Your task to perform on an android device: uninstall "Google Home" Image 0: 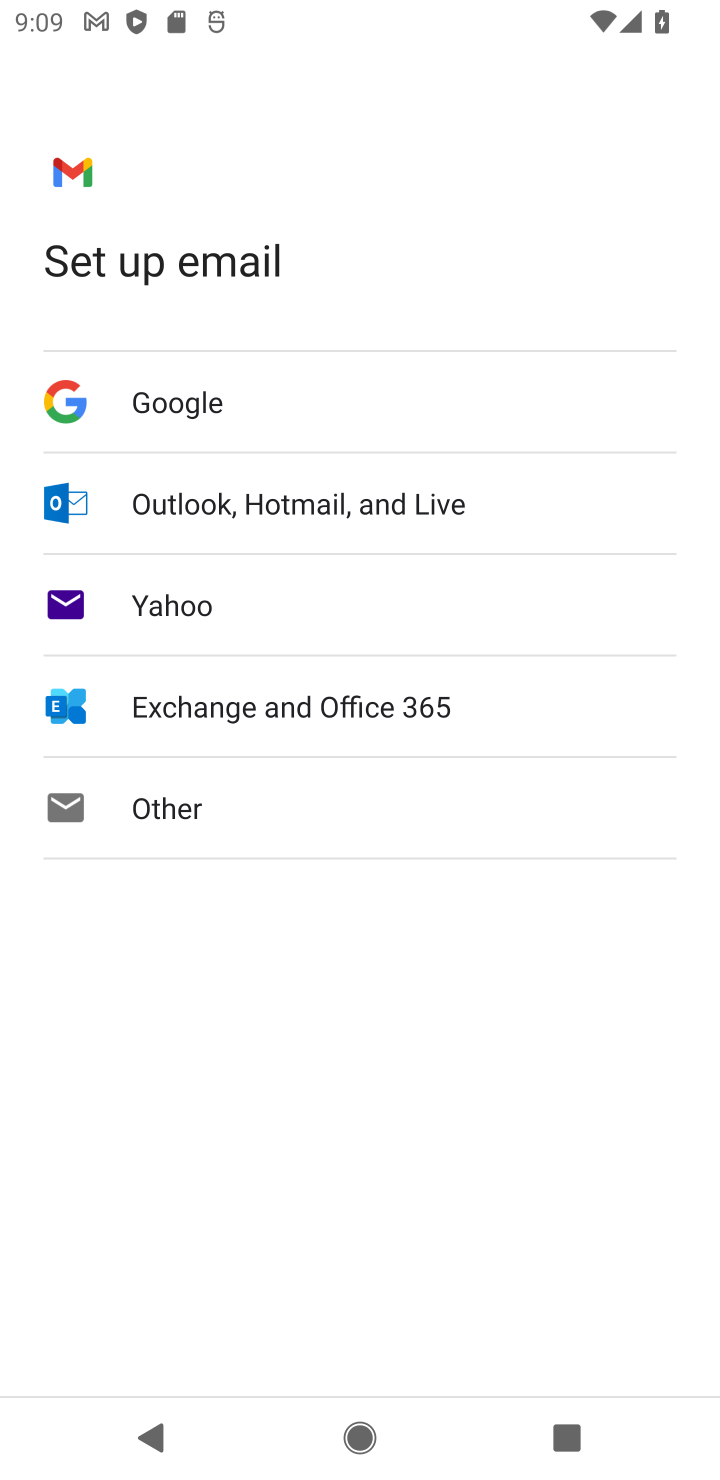
Step 0: press back button
Your task to perform on an android device: uninstall "Google Home" Image 1: 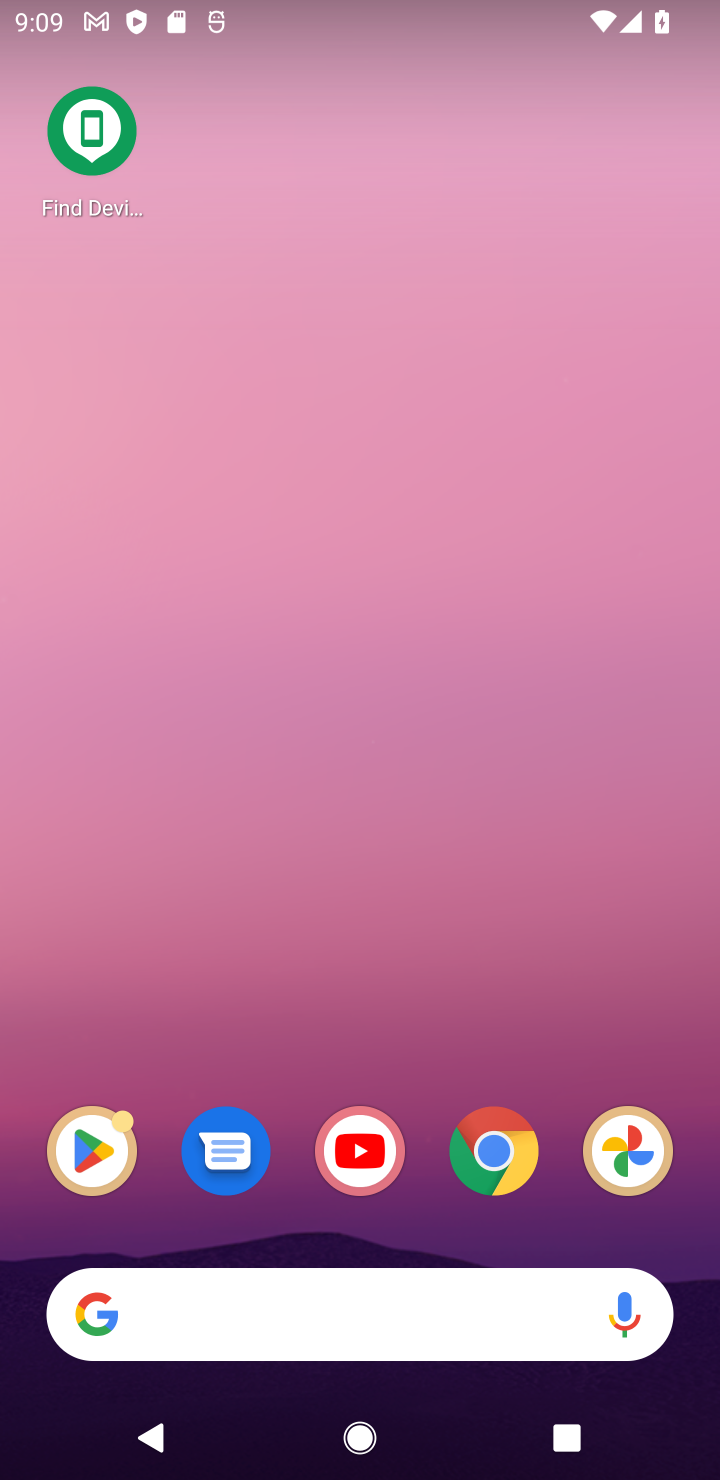
Step 1: click (312, 565)
Your task to perform on an android device: uninstall "Google Home" Image 2: 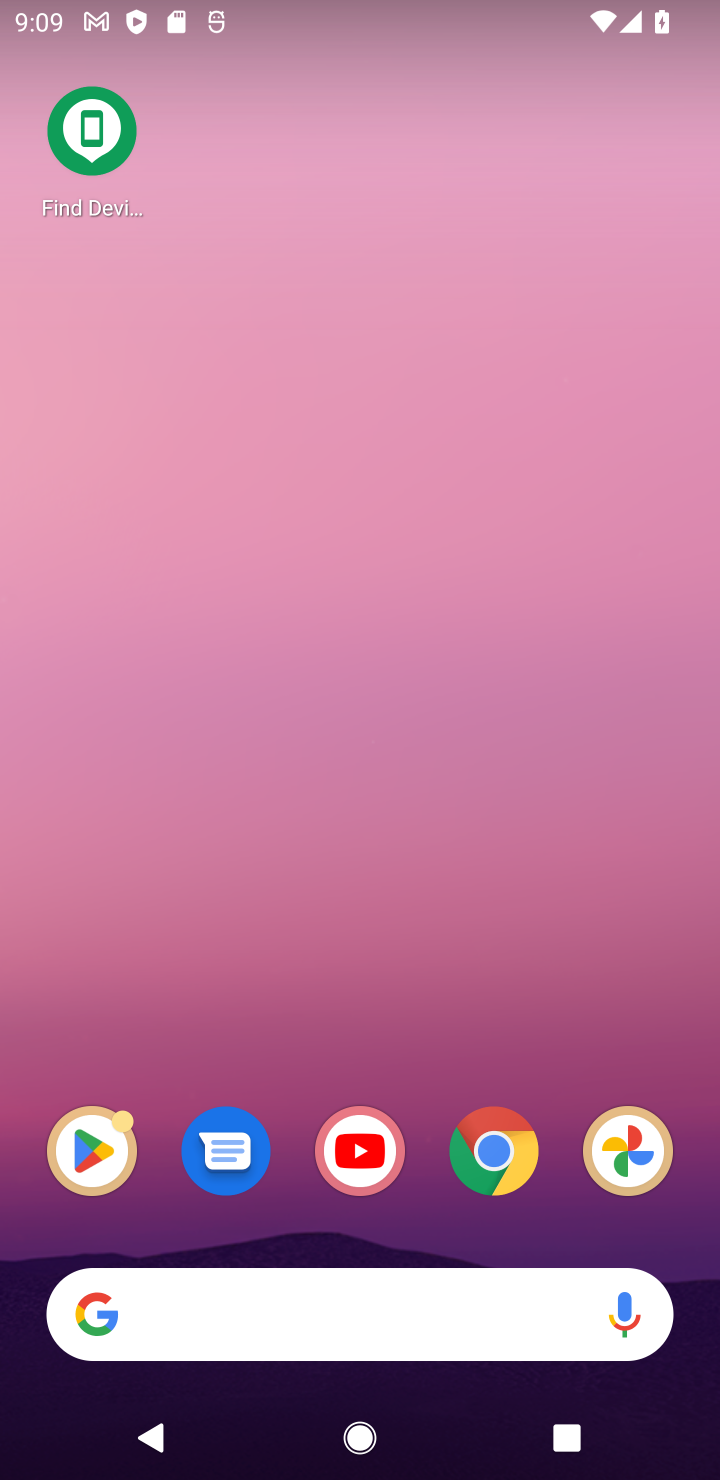
Step 2: click (388, 489)
Your task to perform on an android device: uninstall "Google Home" Image 3: 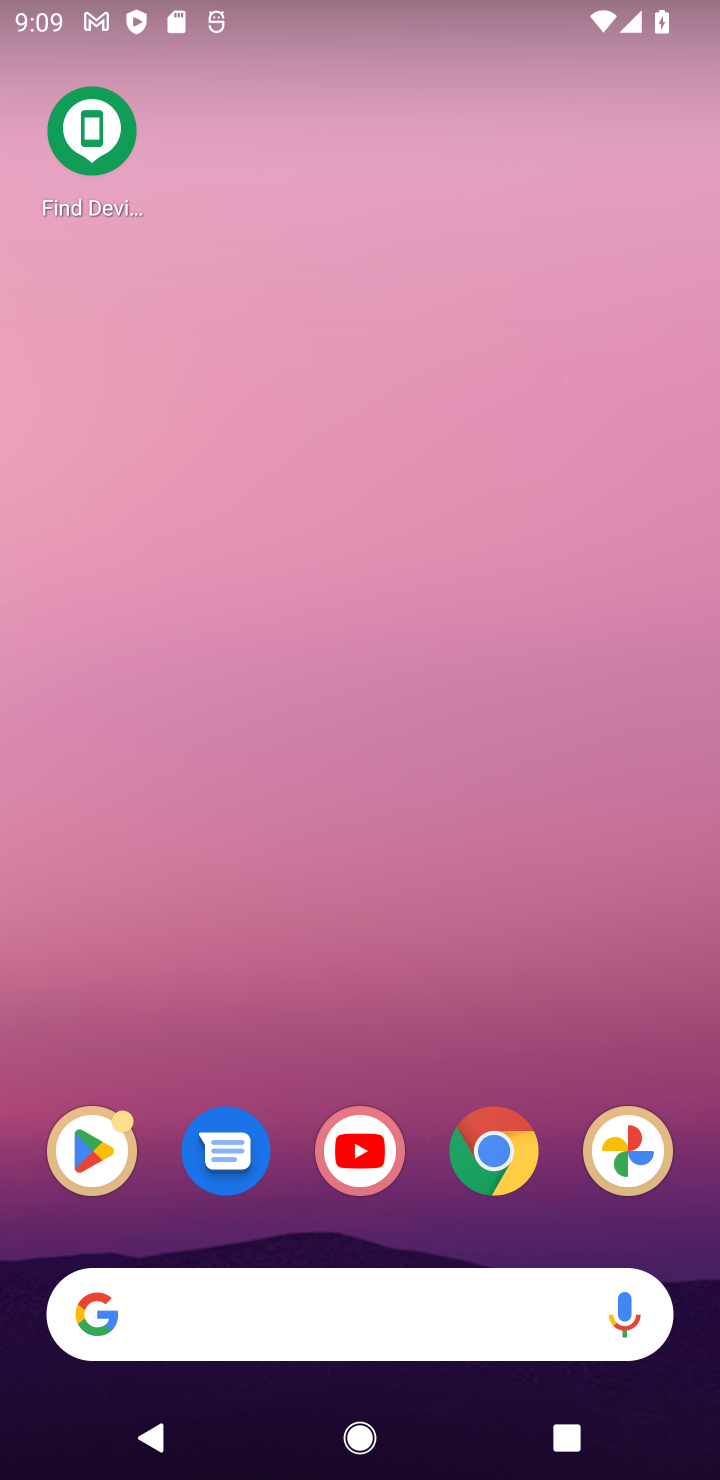
Step 3: drag from (504, 589) to (469, 378)
Your task to perform on an android device: uninstall "Google Home" Image 4: 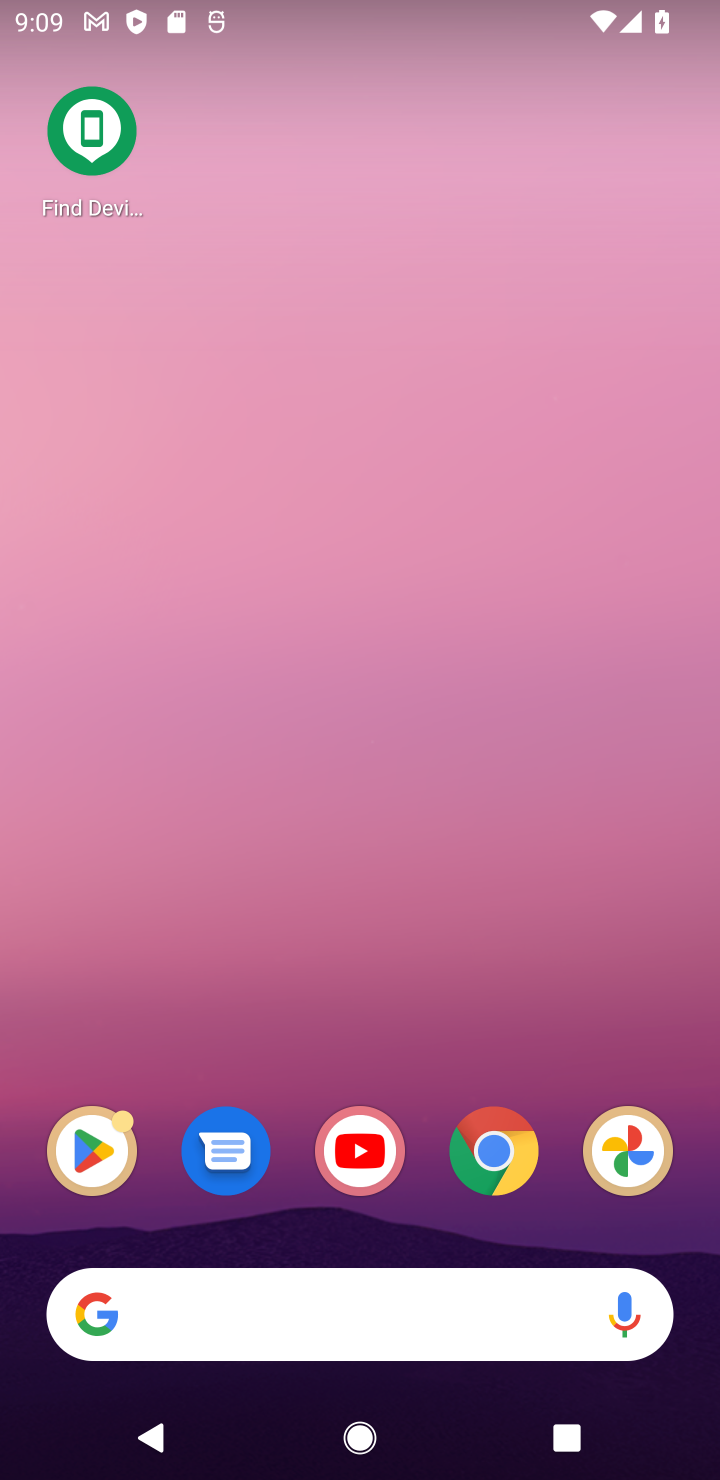
Step 4: drag from (418, 1182) to (293, 723)
Your task to perform on an android device: uninstall "Google Home" Image 5: 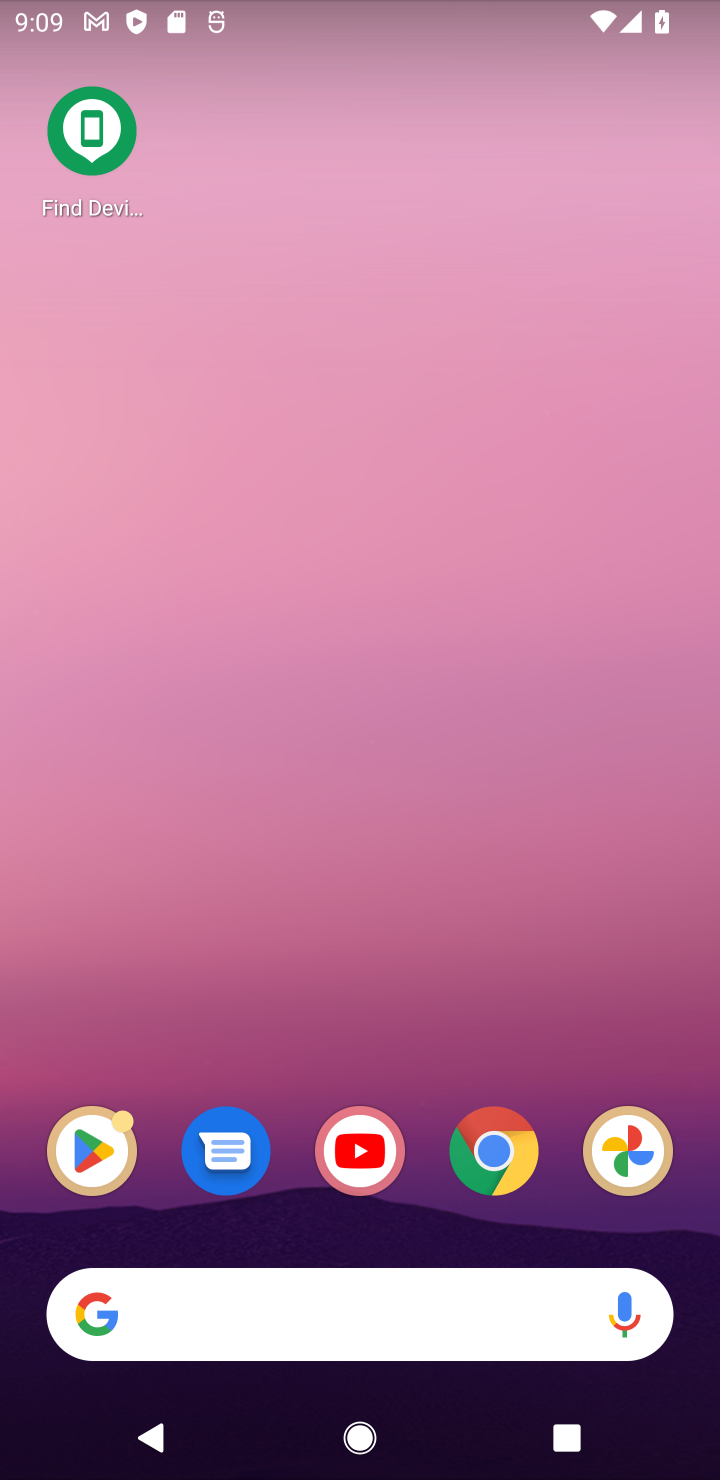
Step 5: drag from (420, 1119) to (387, 621)
Your task to perform on an android device: uninstall "Google Home" Image 6: 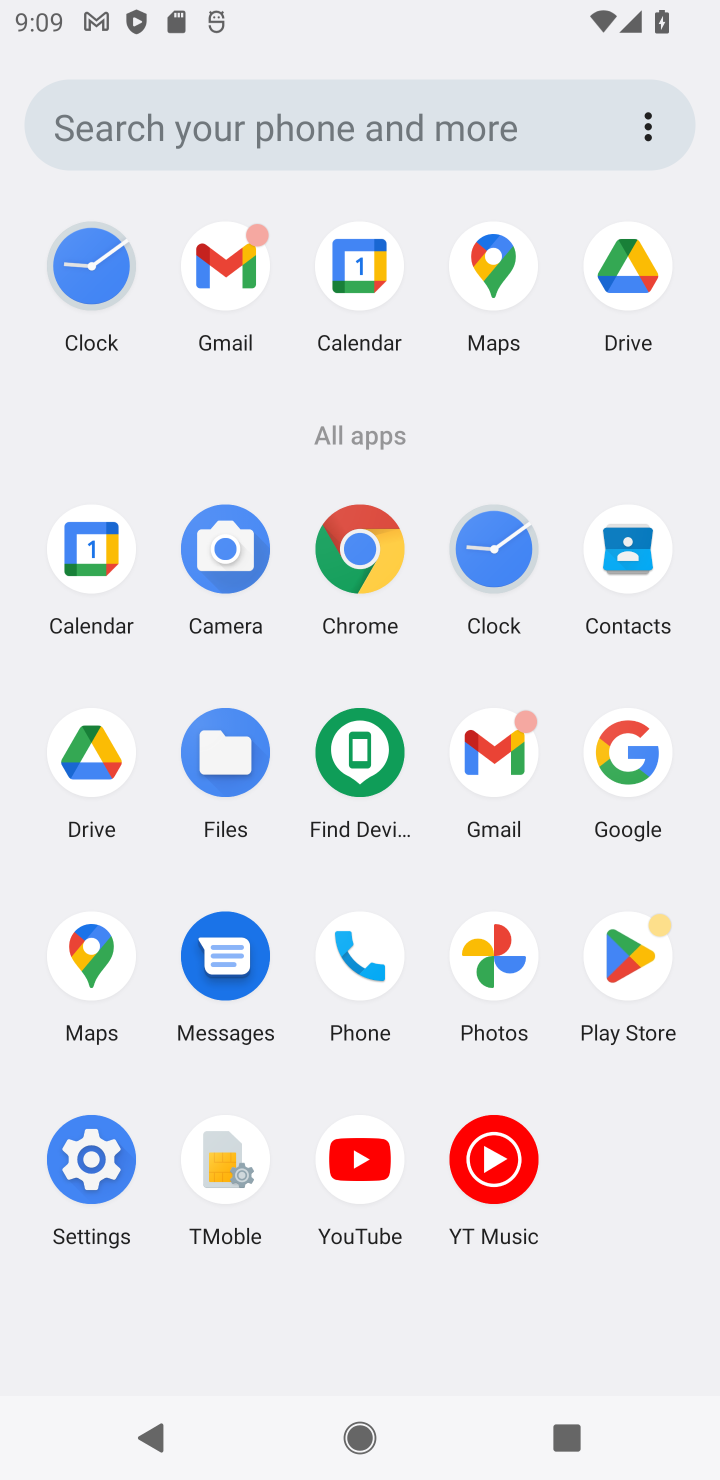
Step 6: click (623, 977)
Your task to perform on an android device: uninstall "Google Home" Image 7: 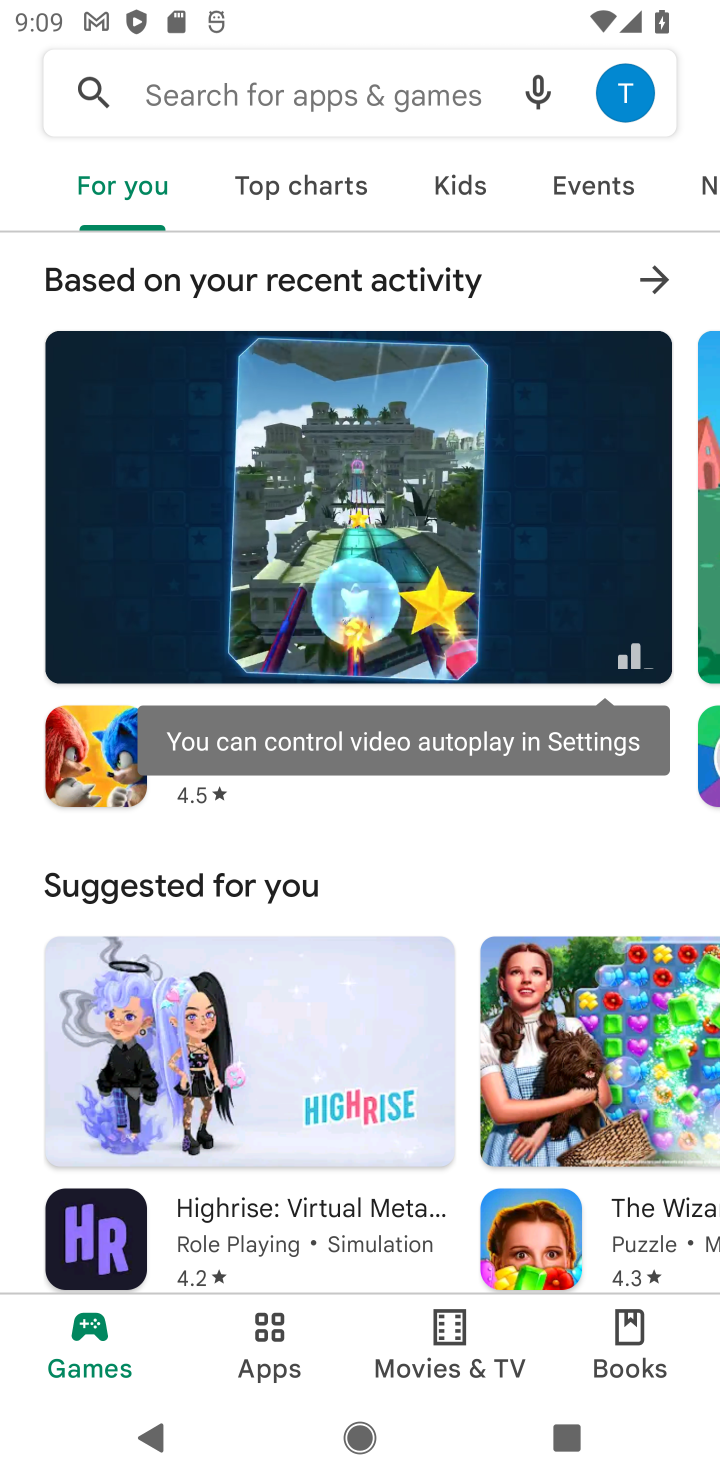
Step 7: click (192, 101)
Your task to perform on an android device: uninstall "Google Home" Image 8: 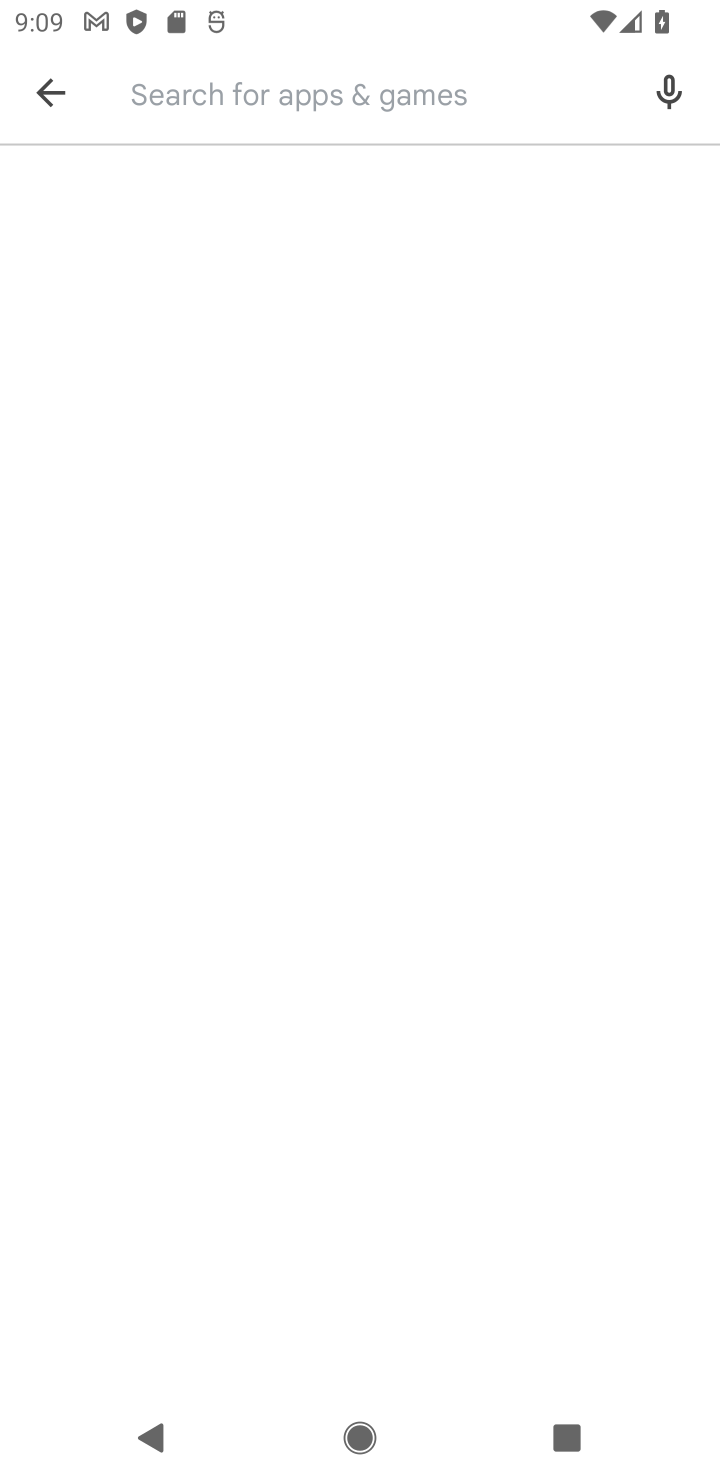
Step 8: click (203, 111)
Your task to perform on an android device: uninstall "Google Home" Image 9: 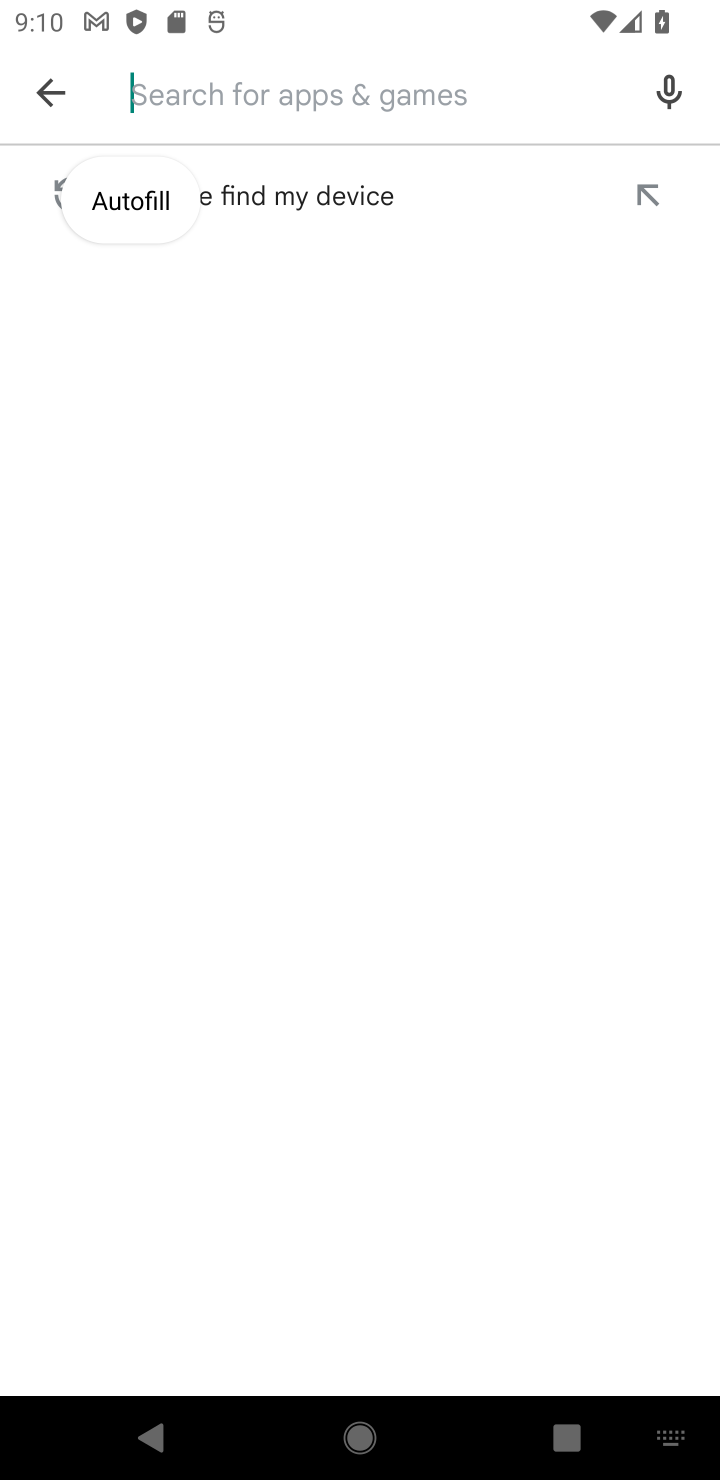
Step 9: type "Google home"
Your task to perform on an android device: uninstall "Google Home" Image 10: 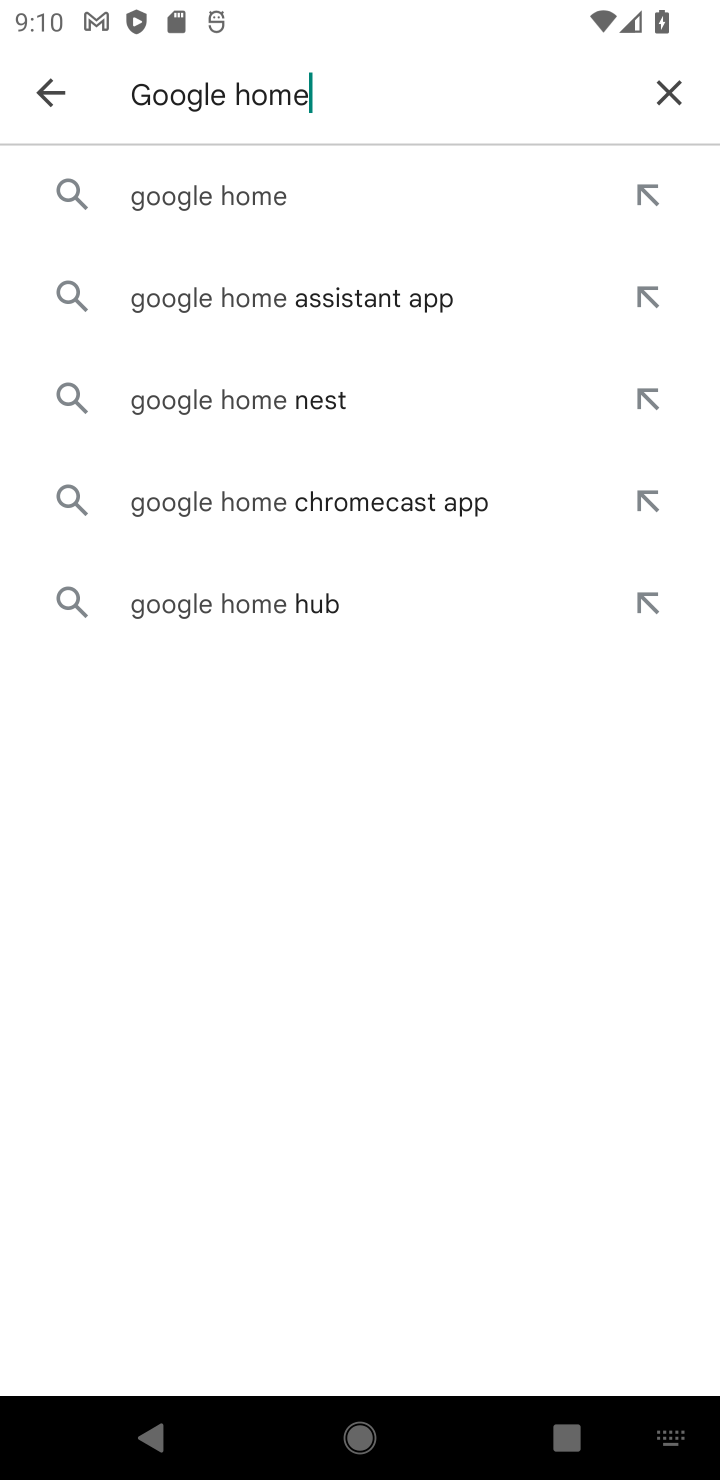
Step 10: click (213, 201)
Your task to perform on an android device: uninstall "Google Home" Image 11: 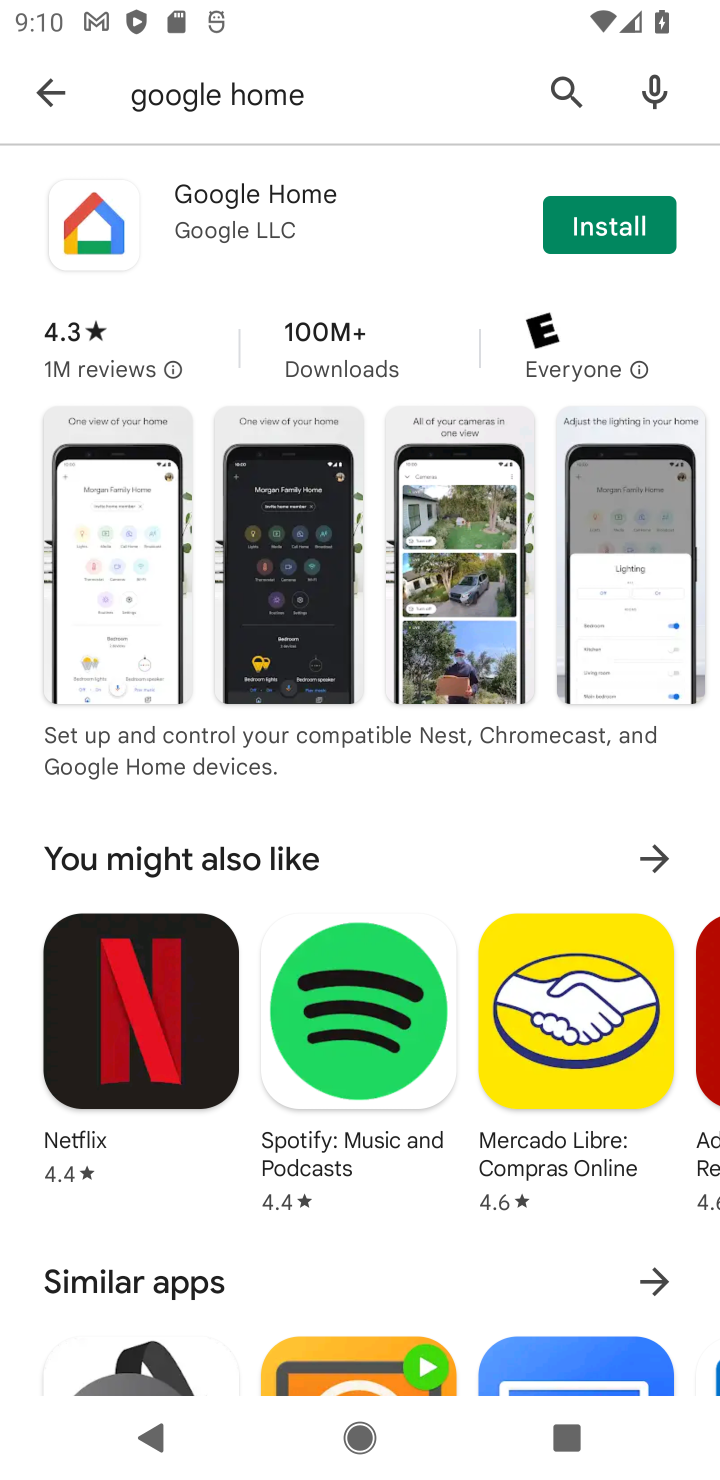
Step 11: task complete